Your task to perform on an android device: Open Google Chrome Image 0: 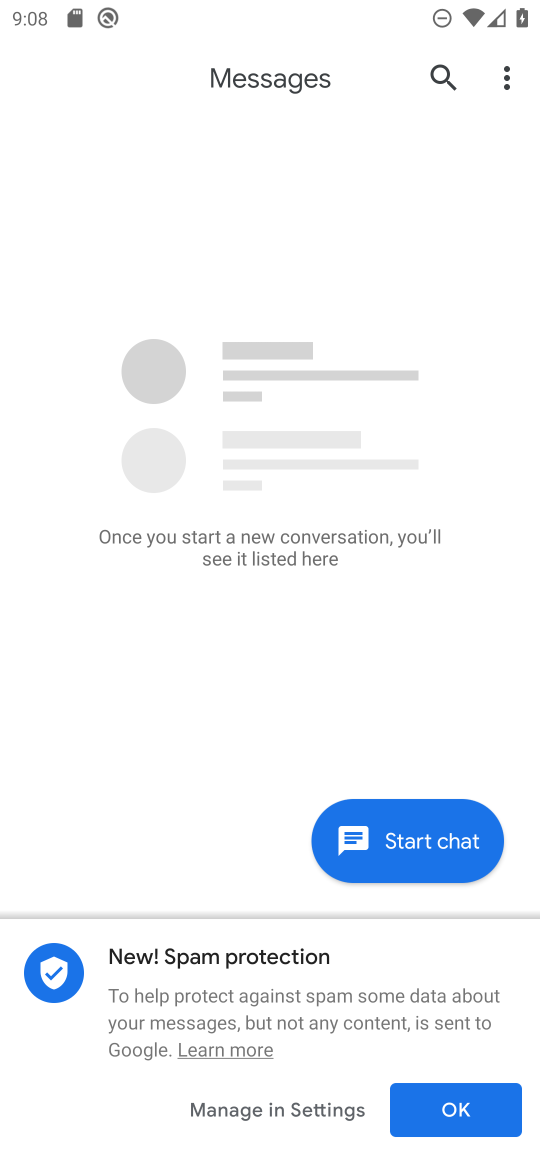
Step 0: press home button
Your task to perform on an android device: Open Google Chrome Image 1: 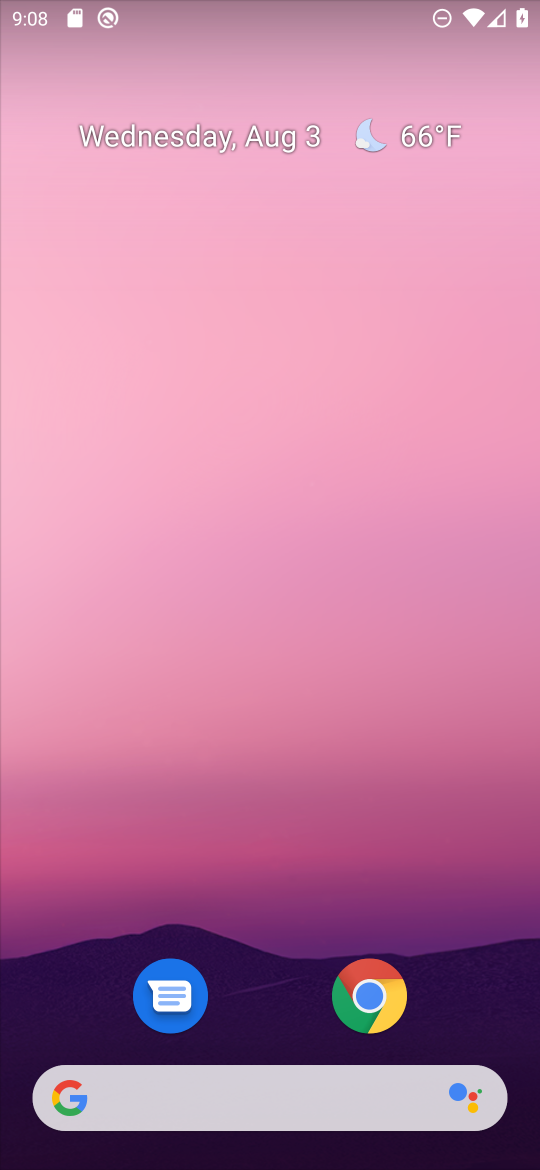
Step 1: click (365, 996)
Your task to perform on an android device: Open Google Chrome Image 2: 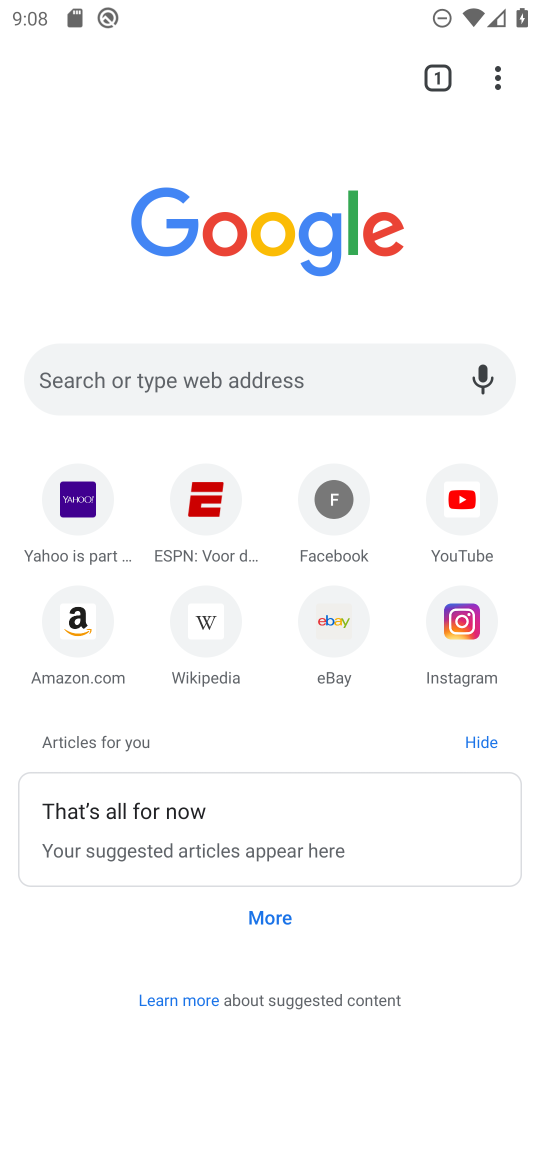
Step 2: task complete